Your task to perform on an android device: What's on my calendar tomorrow? Image 0: 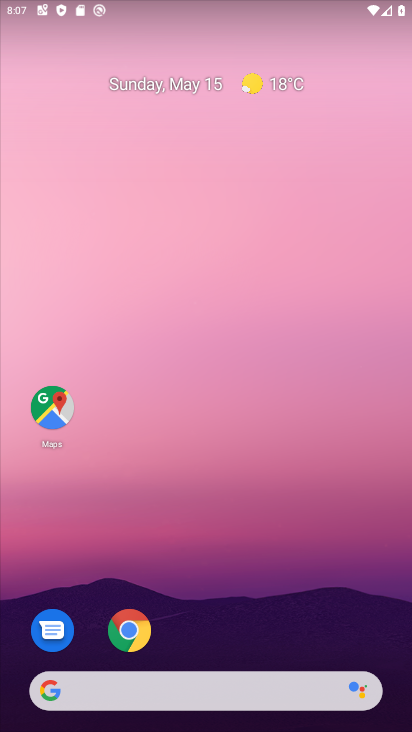
Step 0: drag from (180, 660) to (238, 122)
Your task to perform on an android device: What's on my calendar tomorrow? Image 1: 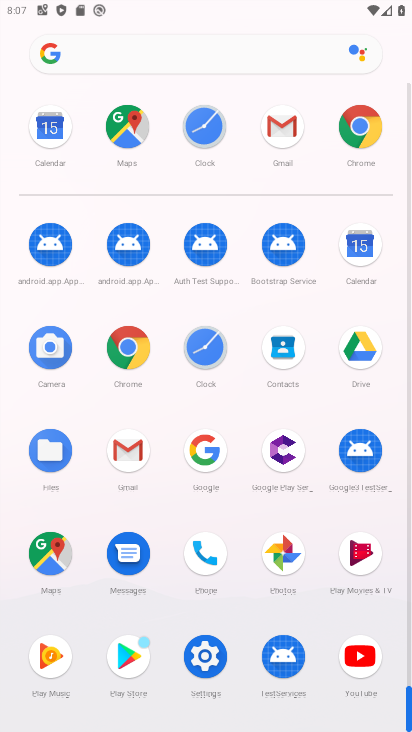
Step 1: click (358, 264)
Your task to perform on an android device: What's on my calendar tomorrow? Image 2: 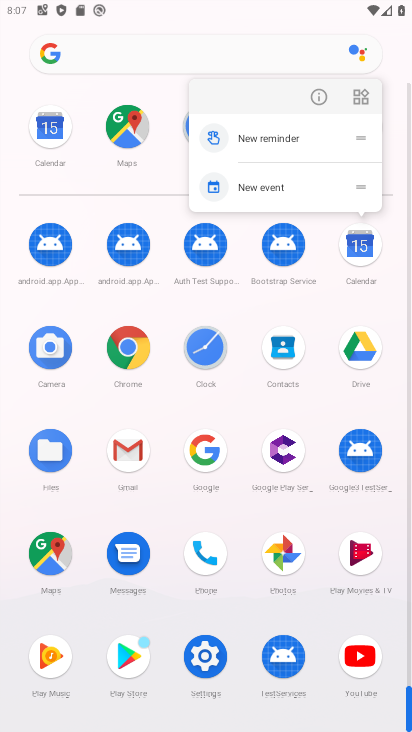
Step 2: click (317, 96)
Your task to perform on an android device: What's on my calendar tomorrow? Image 3: 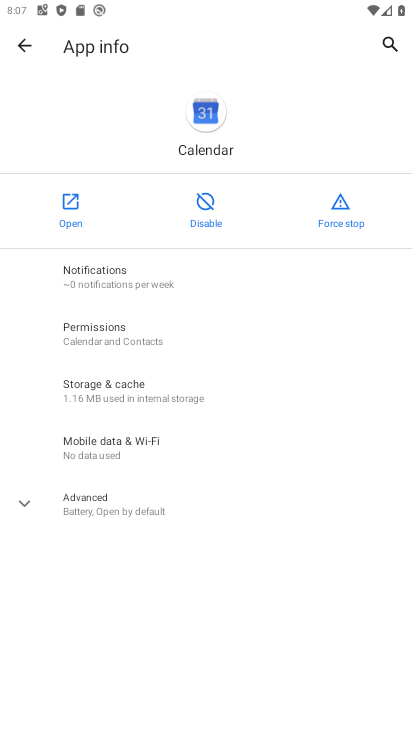
Step 3: click (66, 215)
Your task to perform on an android device: What's on my calendar tomorrow? Image 4: 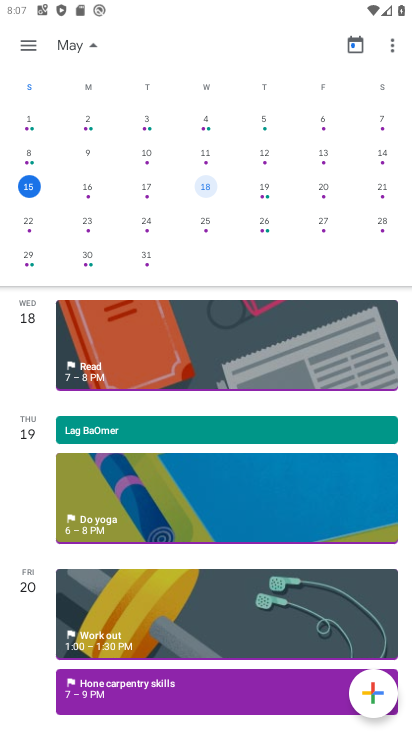
Step 4: click (84, 190)
Your task to perform on an android device: What's on my calendar tomorrow? Image 5: 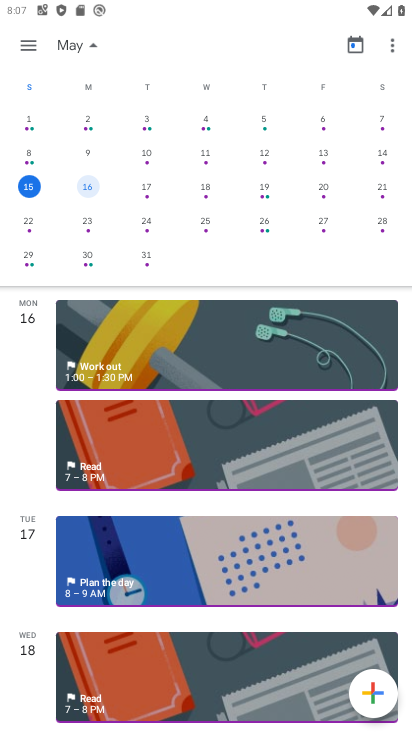
Step 5: task complete